Your task to perform on an android device: Open Amazon Image 0: 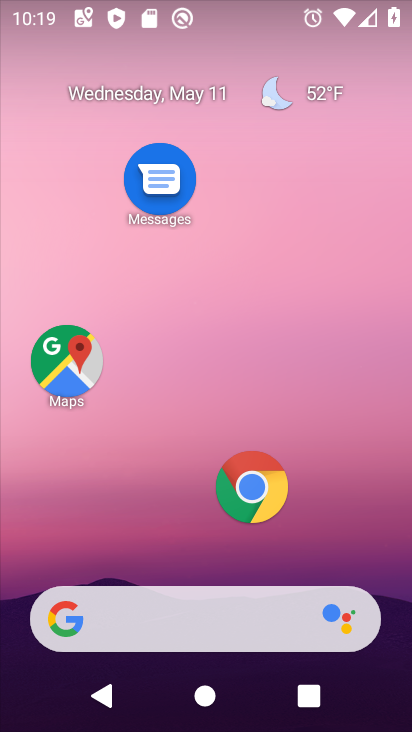
Step 0: click (264, 482)
Your task to perform on an android device: Open Amazon Image 1: 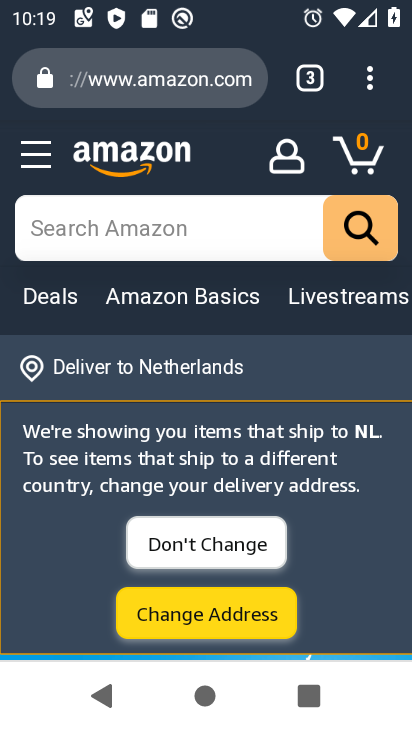
Step 1: task complete